Your task to perform on an android device: Check the news Image 0: 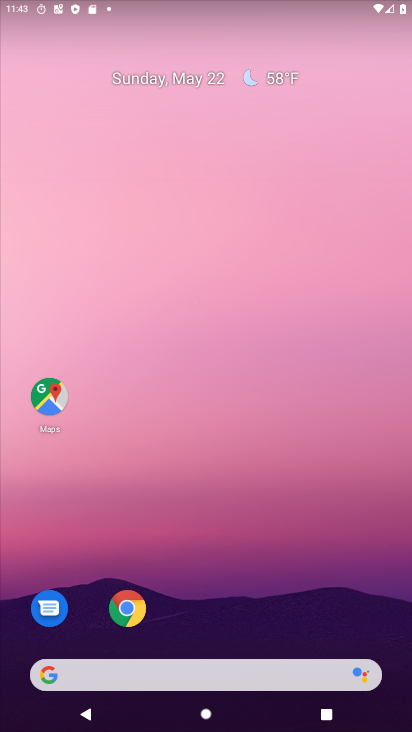
Step 0: click (228, 680)
Your task to perform on an android device: Check the news Image 1: 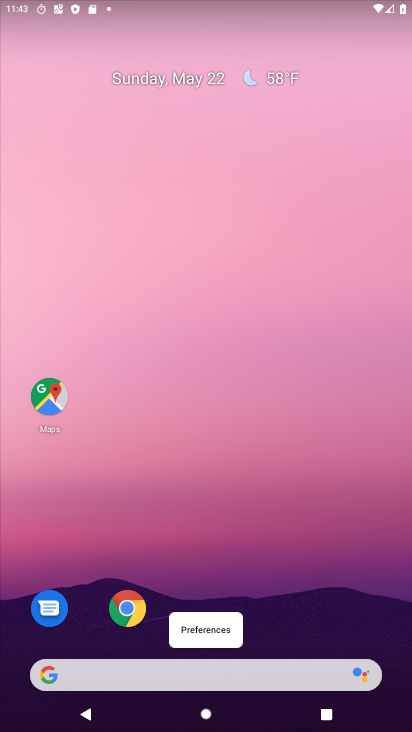
Step 1: click (195, 672)
Your task to perform on an android device: Check the news Image 2: 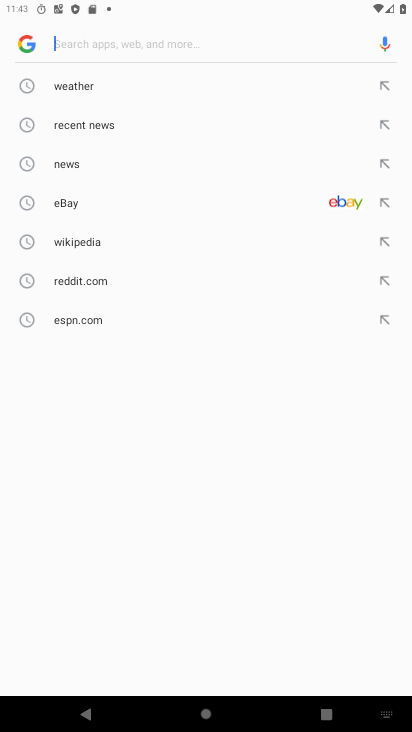
Step 2: click (116, 168)
Your task to perform on an android device: Check the news Image 3: 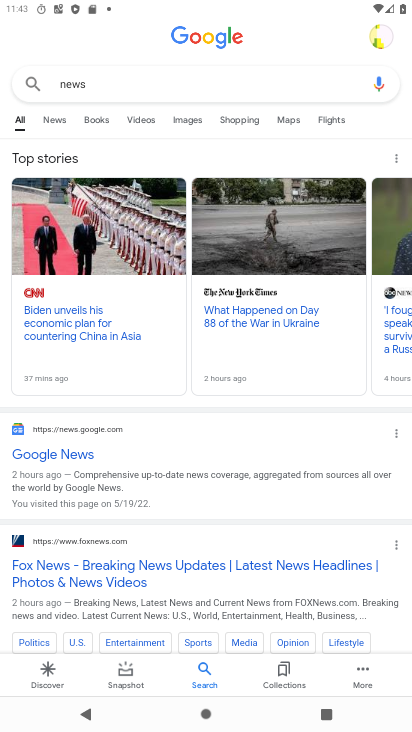
Step 3: task complete